Your task to perform on an android device: Check the weather Image 0: 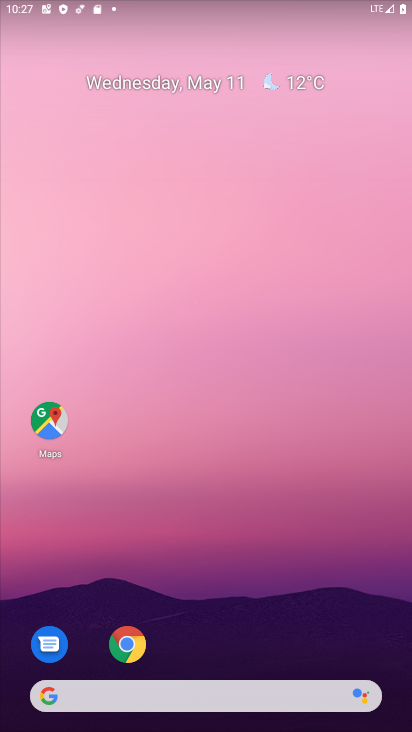
Step 0: click (160, 704)
Your task to perform on an android device: Check the weather Image 1: 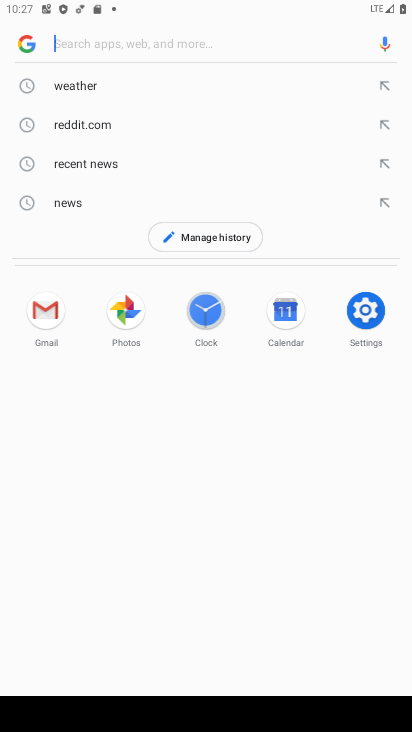
Step 1: click (156, 97)
Your task to perform on an android device: Check the weather Image 2: 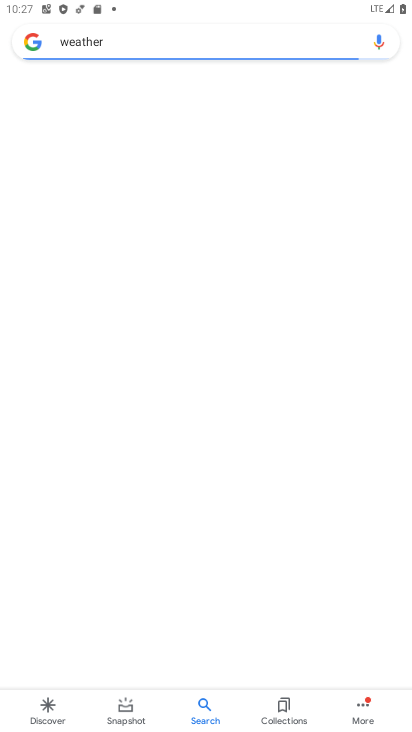
Step 2: task complete